Your task to perform on an android device: change the clock display to analog Image 0: 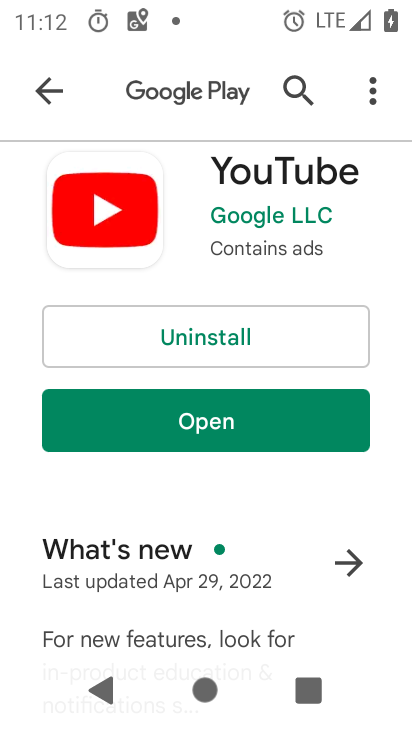
Step 0: press home button
Your task to perform on an android device: change the clock display to analog Image 1: 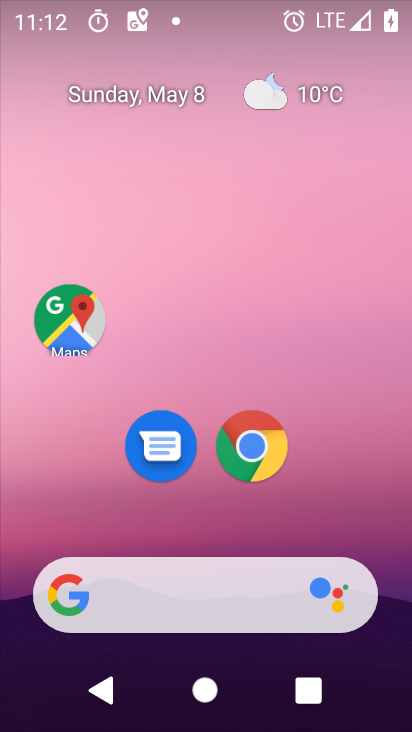
Step 1: drag from (351, 447) to (337, 1)
Your task to perform on an android device: change the clock display to analog Image 2: 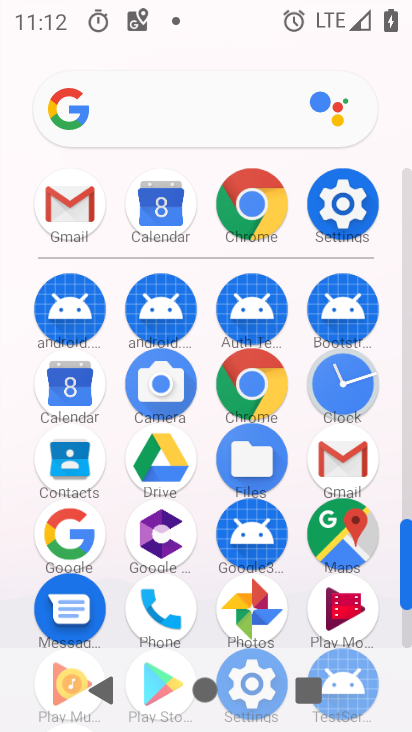
Step 2: click (338, 386)
Your task to perform on an android device: change the clock display to analog Image 3: 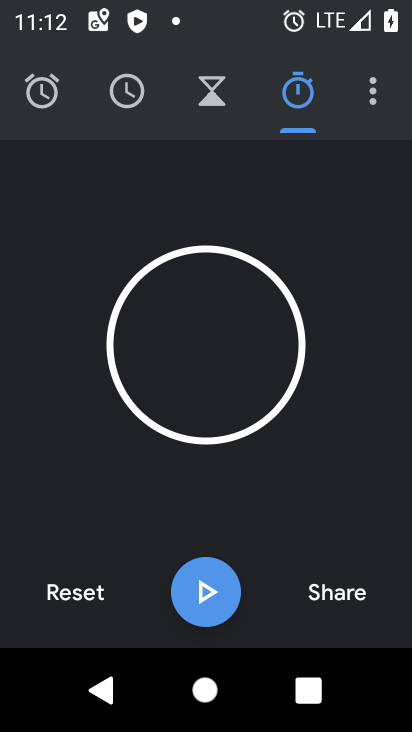
Step 3: click (377, 103)
Your task to perform on an android device: change the clock display to analog Image 4: 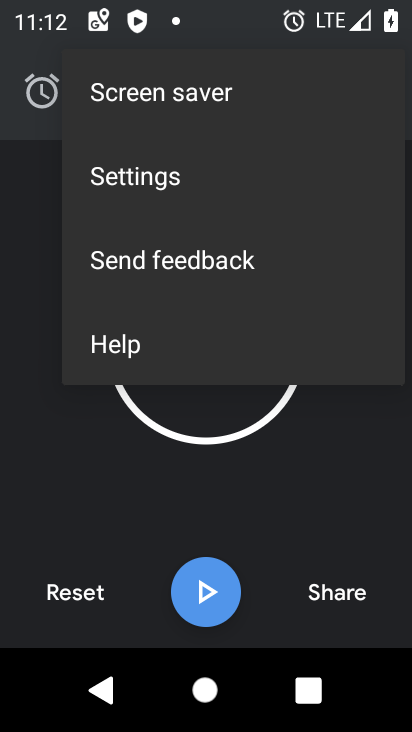
Step 4: click (120, 183)
Your task to perform on an android device: change the clock display to analog Image 5: 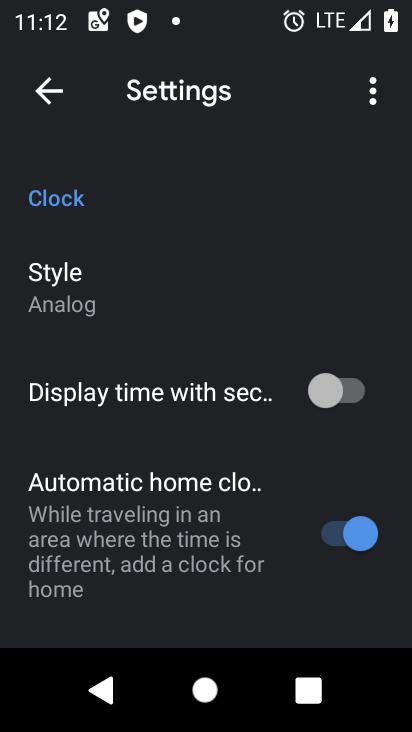
Step 5: task complete